Your task to perform on an android device: Go to Maps Image 0: 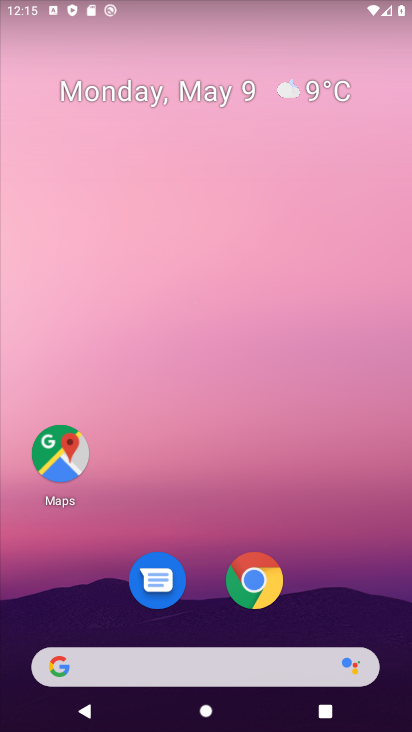
Step 0: click (71, 454)
Your task to perform on an android device: Go to Maps Image 1: 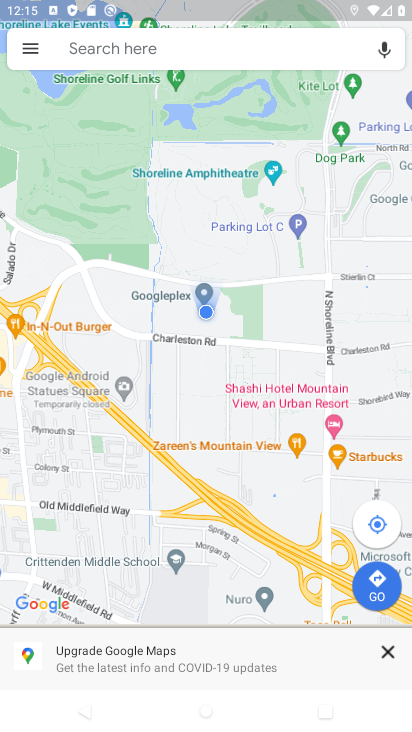
Step 1: task complete